Your task to perform on an android device: turn on data saver in the chrome app Image 0: 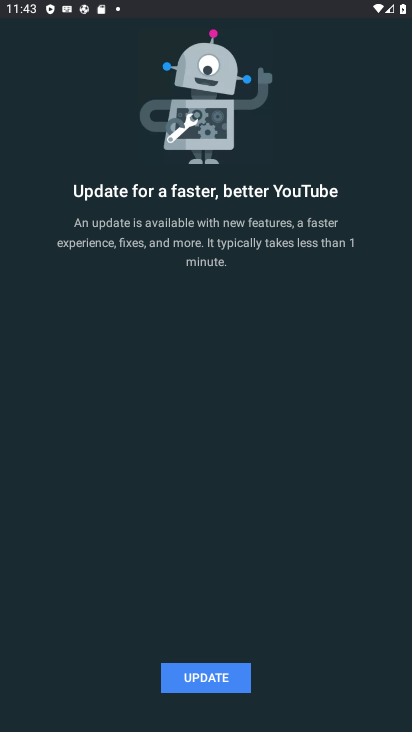
Step 0: press home button
Your task to perform on an android device: turn on data saver in the chrome app Image 1: 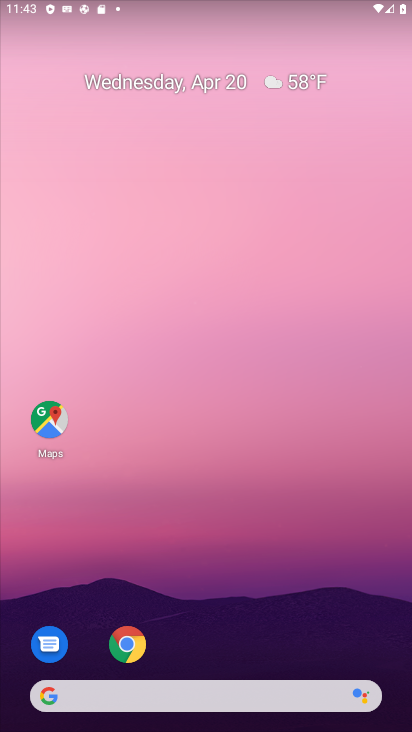
Step 1: click (122, 647)
Your task to perform on an android device: turn on data saver in the chrome app Image 2: 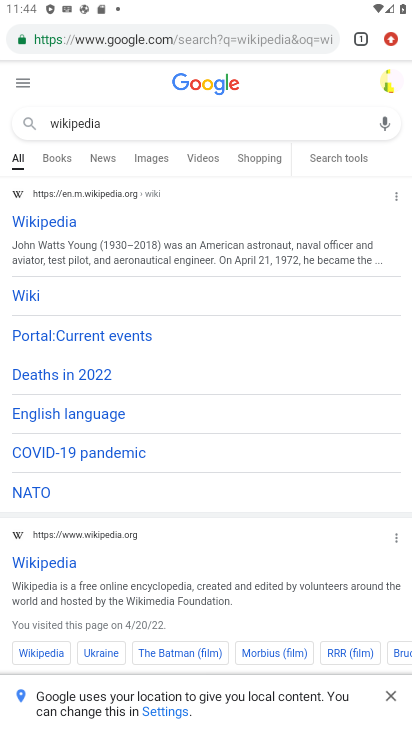
Step 2: click (391, 43)
Your task to perform on an android device: turn on data saver in the chrome app Image 3: 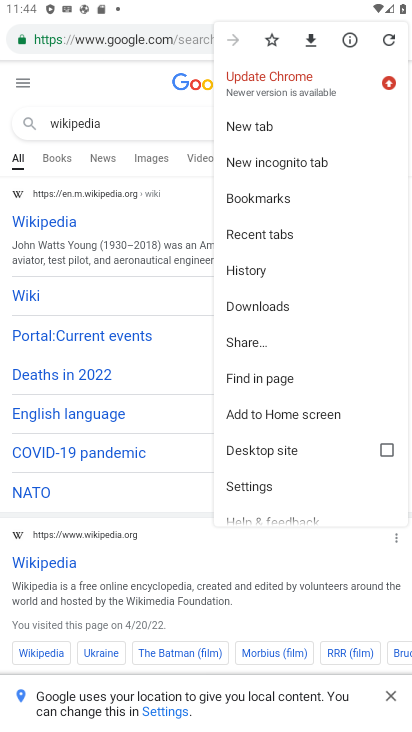
Step 3: click (252, 493)
Your task to perform on an android device: turn on data saver in the chrome app Image 4: 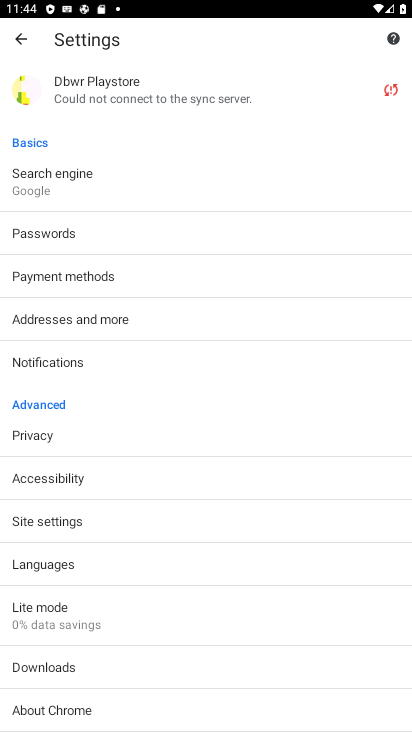
Step 4: click (105, 614)
Your task to perform on an android device: turn on data saver in the chrome app Image 5: 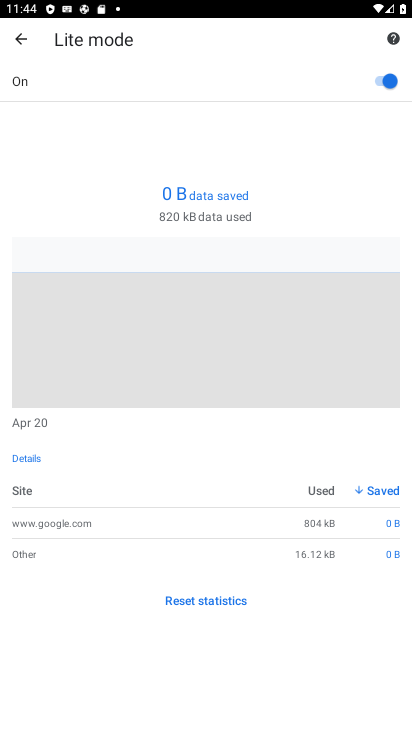
Step 5: task complete